Your task to perform on an android device: Open my contact list Image 0: 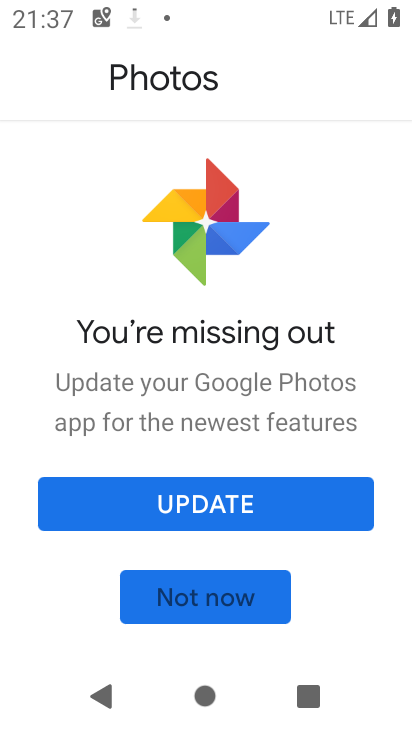
Step 0: press back button
Your task to perform on an android device: Open my contact list Image 1: 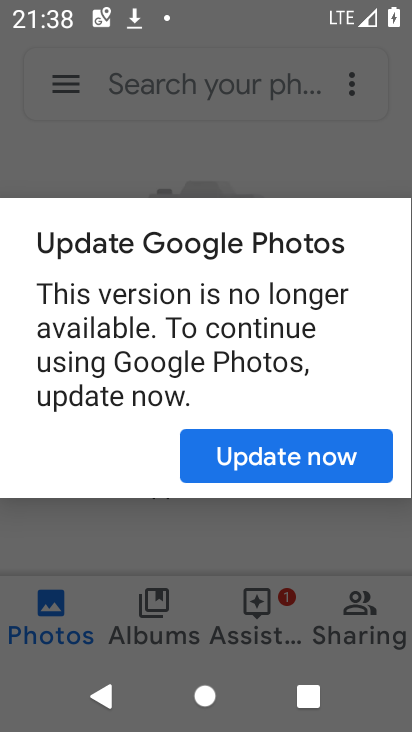
Step 1: press home button
Your task to perform on an android device: Open my contact list Image 2: 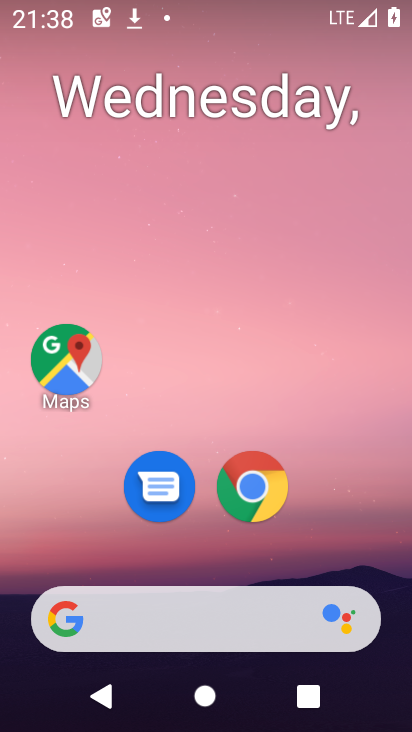
Step 2: drag from (75, 564) to (180, 29)
Your task to perform on an android device: Open my contact list Image 3: 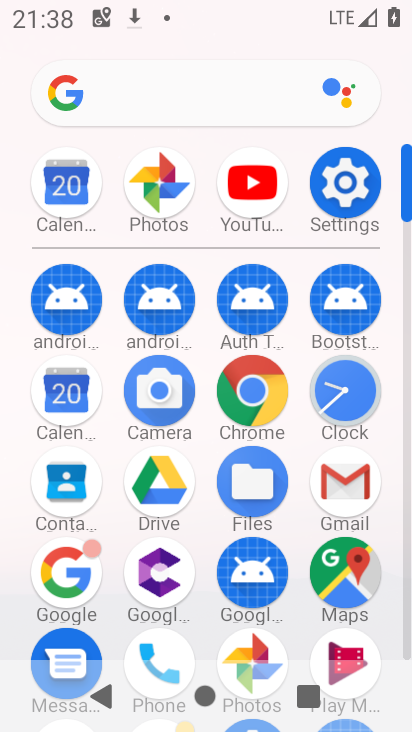
Step 3: click (74, 486)
Your task to perform on an android device: Open my contact list Image 4: 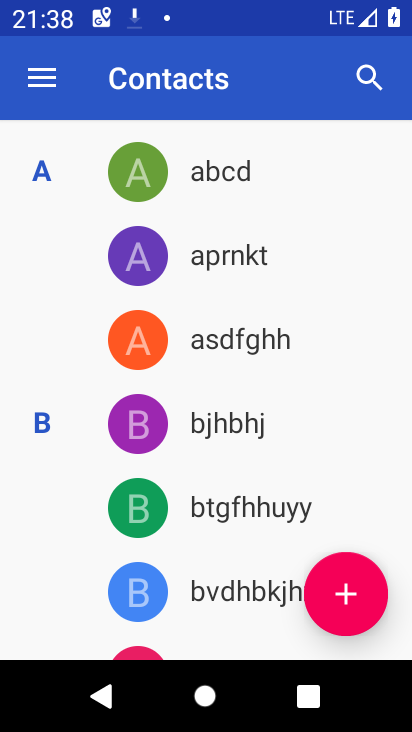
Step 4: task complete